Your task to perform on an android device: delete a single message in the gmail app Image 0: 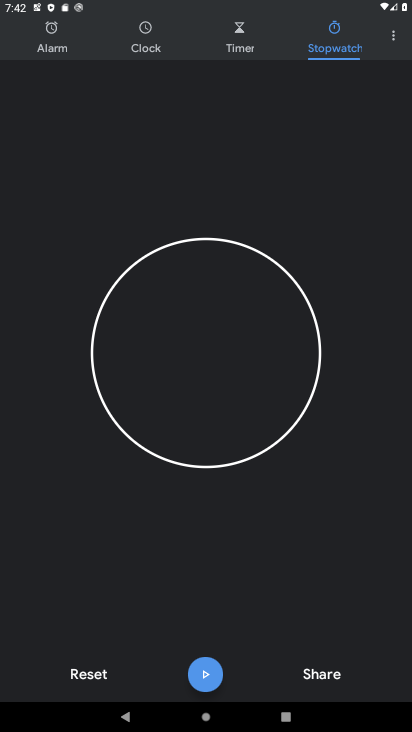
Step 0: press home button
Your task to perform on an android device: delete a single message in the gmail app Image 1: 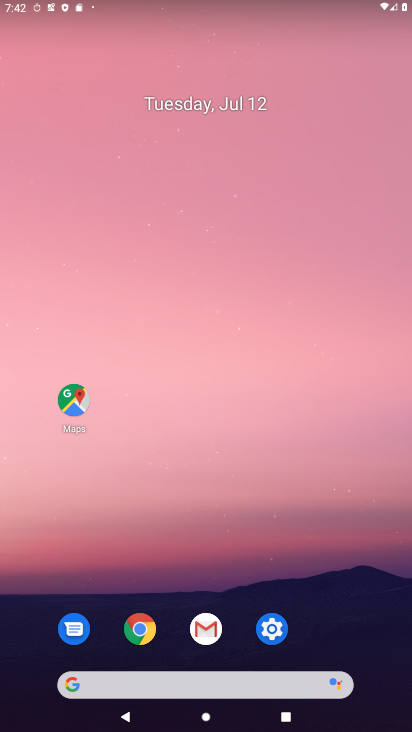
Step 1: click (211, 619)
Your task to perform on an android device: delete a single message in the gmail app Image 2: 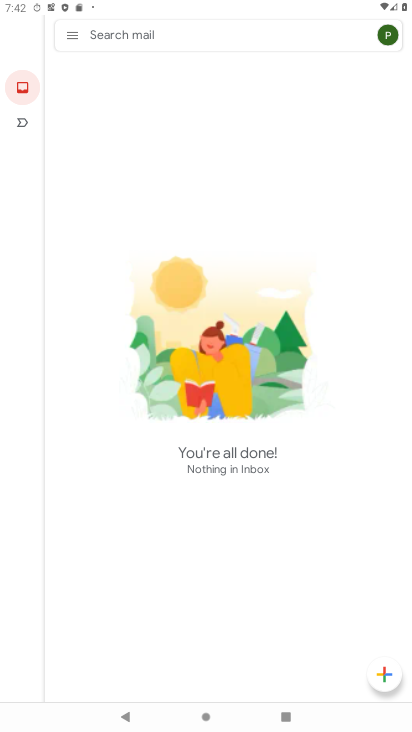
Step 2: click (61, 42)
Your task to perform on an android device: delete a single message in the gmail app Image 3: 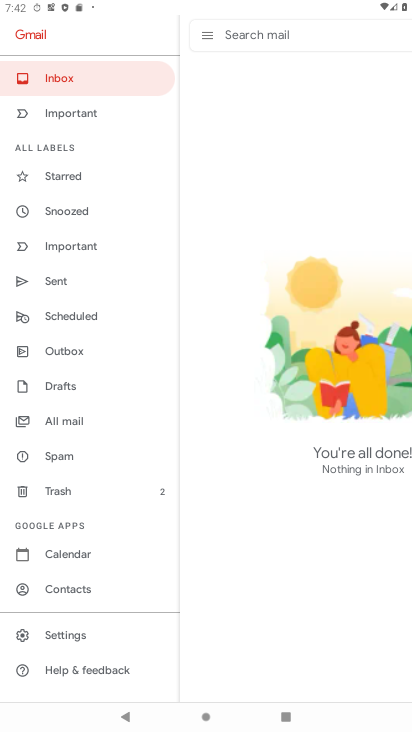
Step 3: click (91, 415)
Your task to perform on an android device: delete a single message in the gmail app Image 4: 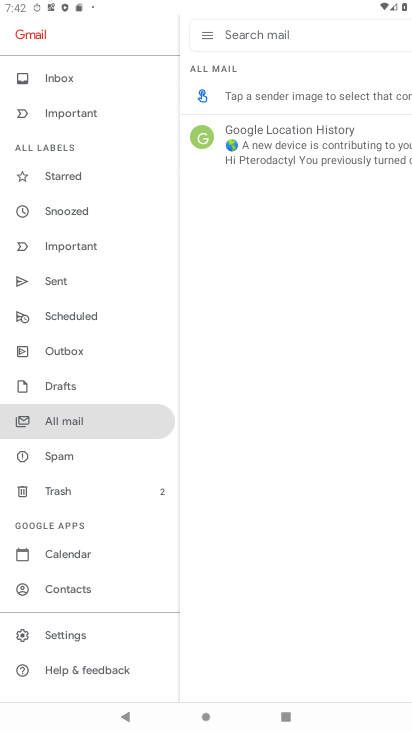
Step 4: click (277, 133)
Your task to perform on an android device: delete a single message in the gmail app Image 5: 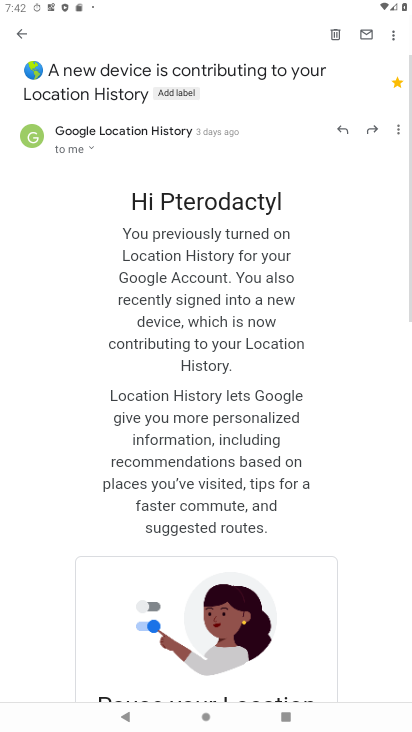
Step 5: click (337, 43)
Your task to perform on an android device: delete a single message in the gmail app Image 6: 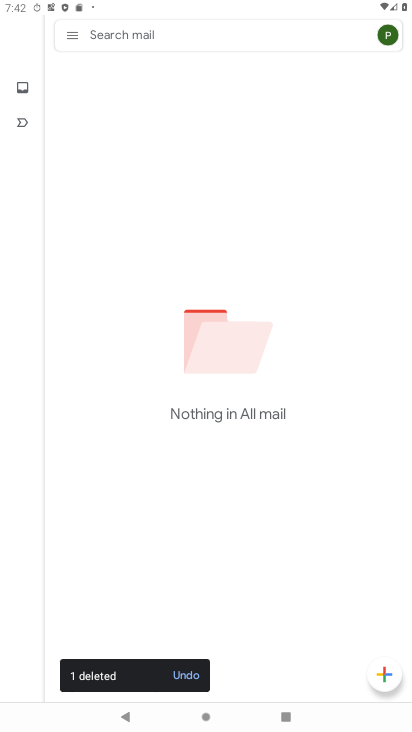
Step 6: task complete